Your task to perform on an android device: Open the calendar app, open the side menu, and click the "Day" option Image 0: 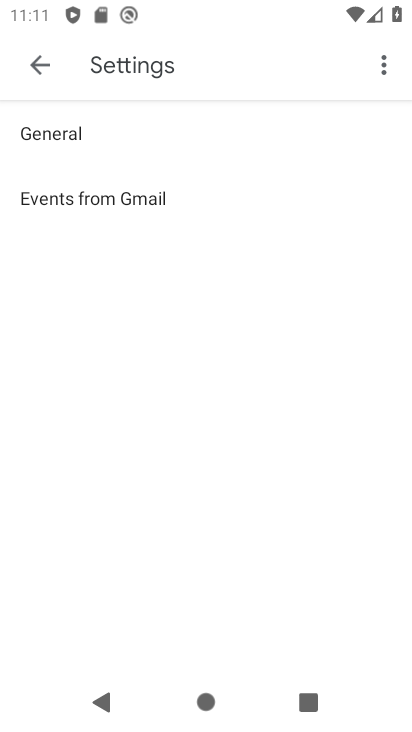
Step 0: press back button
Your task to perform on an android device: Open the calendar app, open the side menu, and click the "Day" option Image 1: 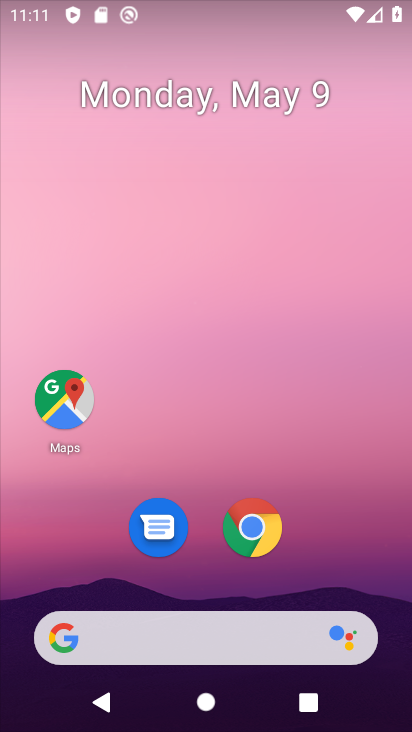
Step 1: drag from (95, 610) to (222, 36)
Your task to perform on an android device: Open the calendar app, open the side menu, and click the "Day" option Image 2: 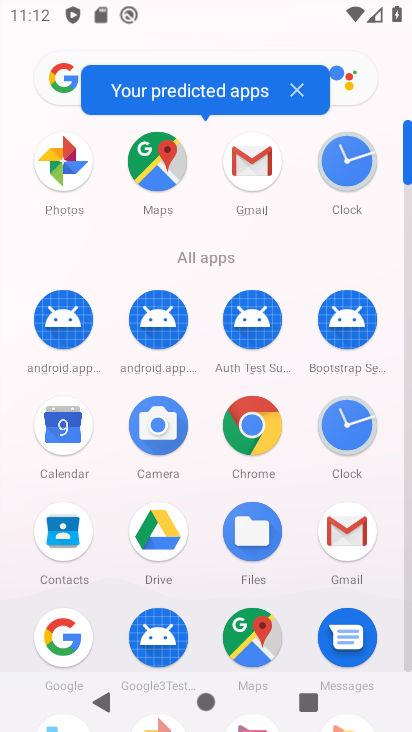
Step 2: click (50, 421)
Your task to perform on an android device: Open the calendar app, open the side menu, and click the "Day" option Image 3: 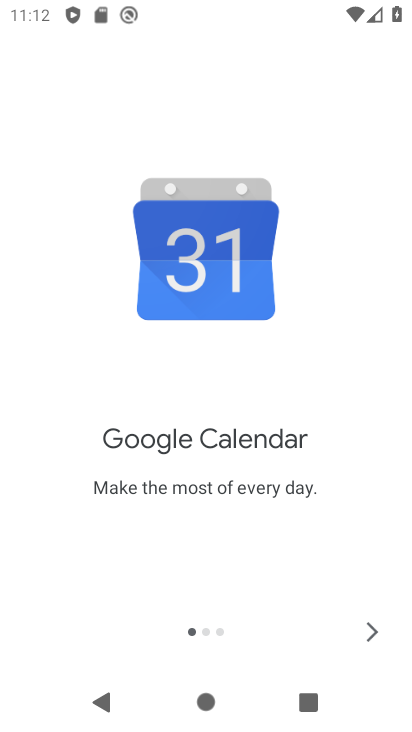
Step 3: click (371, 641)
Your task to perform on an android device: Open the calendar app, open the side menu, and click the "Day" option Image 4: 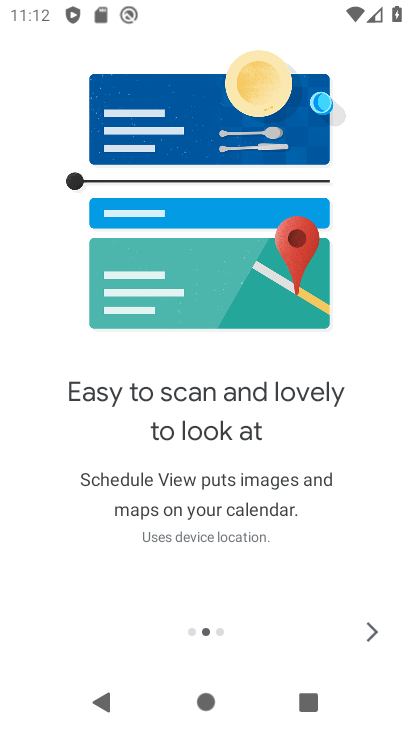
Step 4: click (371, 639)
Your task to perform on an android device: Open the calendar app, open the side menu, and click the "Day" option Image 5: 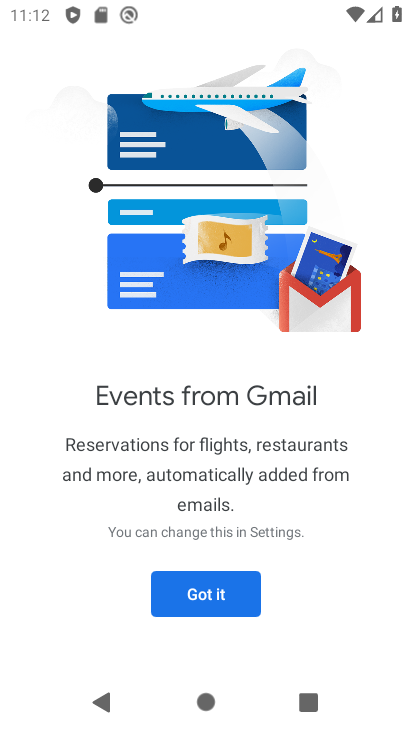
Step 5: click (228, 595)
Your task to perform on an android device: Open the calendar app, open the side menu, and click the "Day" option Image 6: 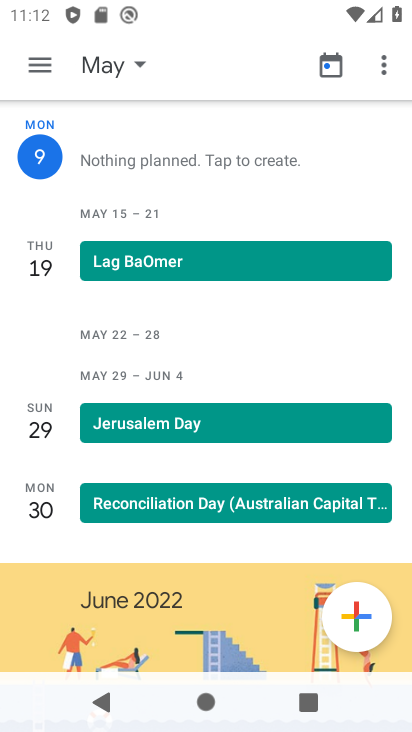
Step 6: click (44, 64)
Your task to perform on an android device: Open the calendar app, open the side menu, and click the "Day" option Image 7: 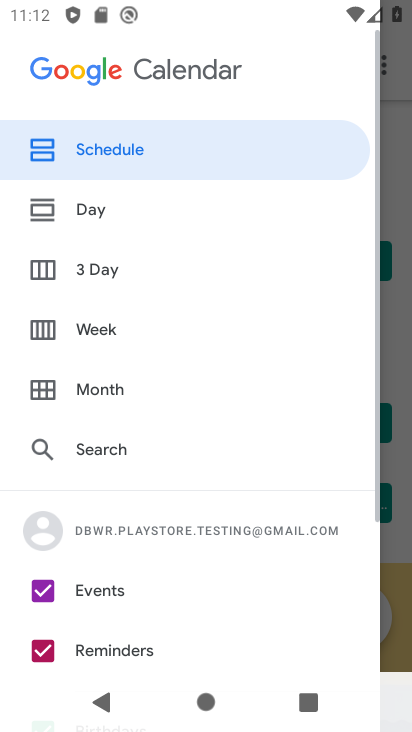
Step 7: click (150, 212)
Your task to perform on an android device: Open the calendar app, open the side menu, and click the "Day" option Image 8: 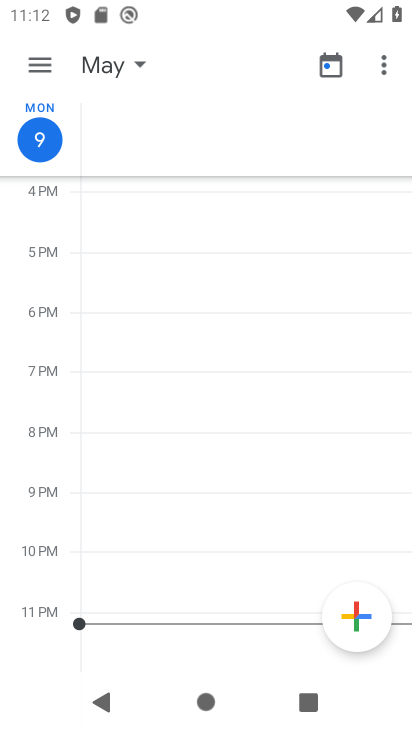
Step 8: task complete